Your task to perform on an android device: turn off smart reply in the gmail app Image 0: 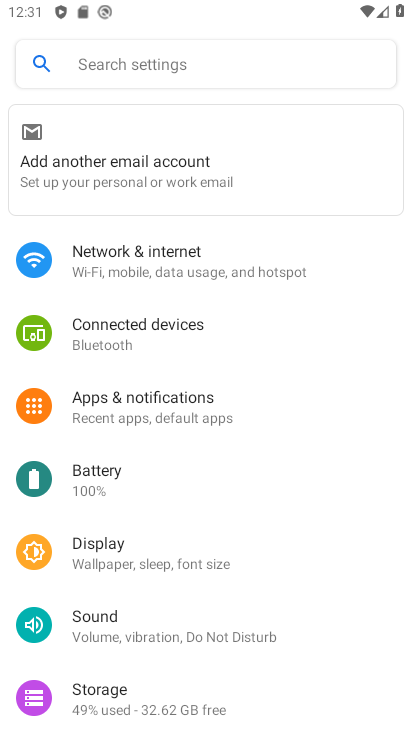
Step 0: press home button
Your task to perform on an android device: turn off smart reply in the gmail app Image 1: 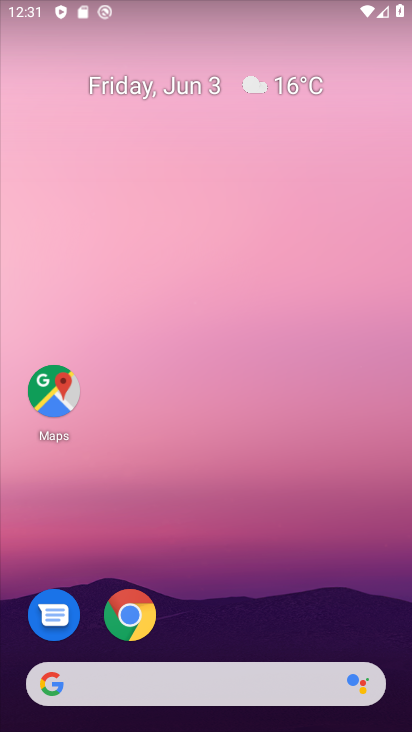
Step 1: drag from (258, 667) to (235, 348)
Your task to perform on an android device: turn off smart reply in the gmail app Image 2: 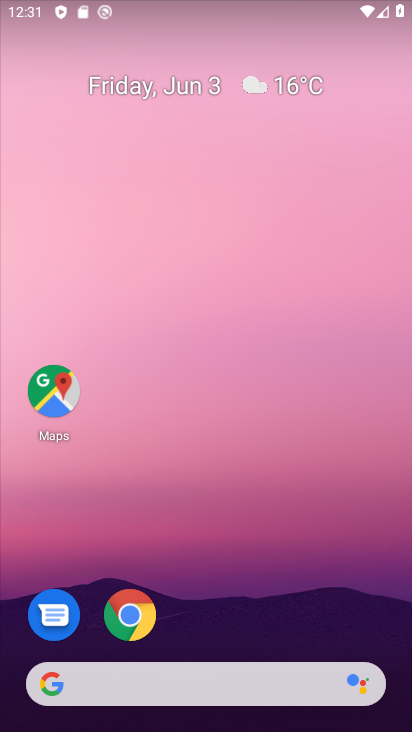
Step 2: drag from (197, 388) to (197, 191)
Your task to perform on an android device: turn off smart reply in the gmail app Image 3: 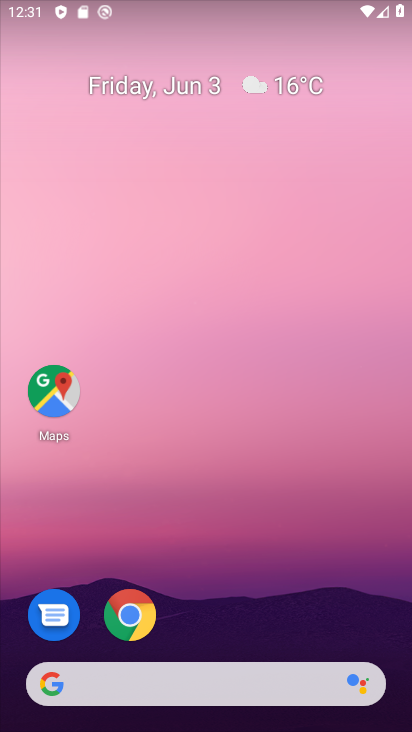
Step 3: drag from (209, 658) to (148, 215)
Your task to perform on an android device: turn off smart reply in the gmail app Image 4: 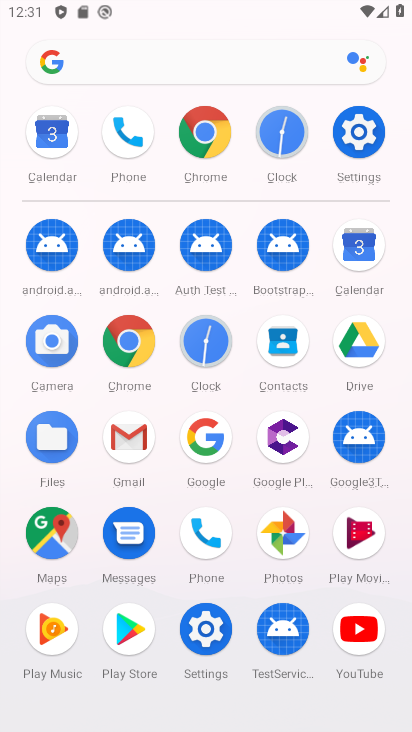
Step 4: click (363, 119)
Your task to perform on an android device: turn off smart reply in the gmail app Image 5: 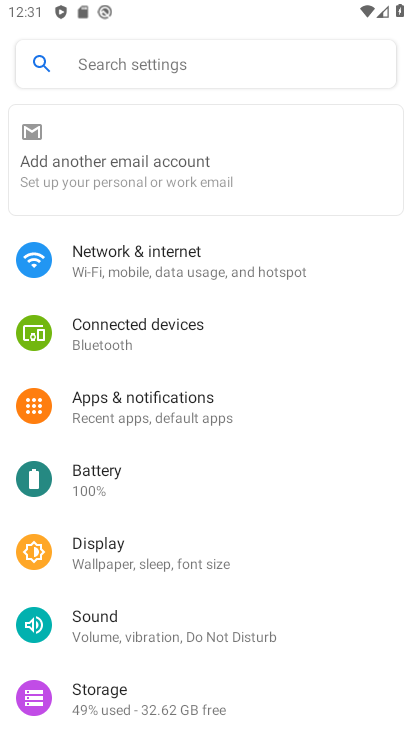
Step 5: press back button
Your task to perform on an android device: turn off smart reply in the gmail app Image 6: 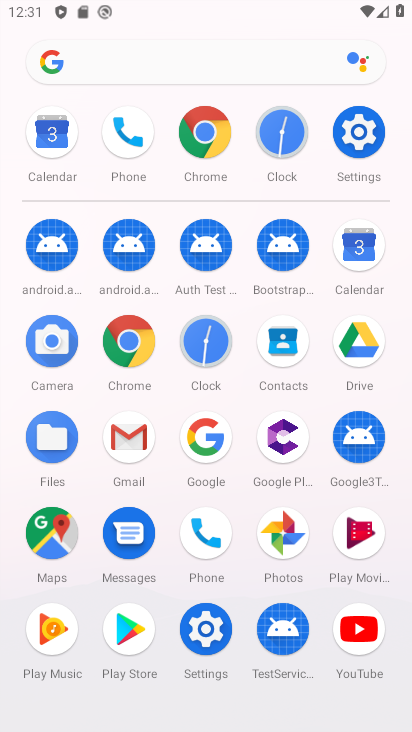
Step 6: click (125, 431)
Your task to perform on an android device: turn off smart reply in the gmail app Image 7: 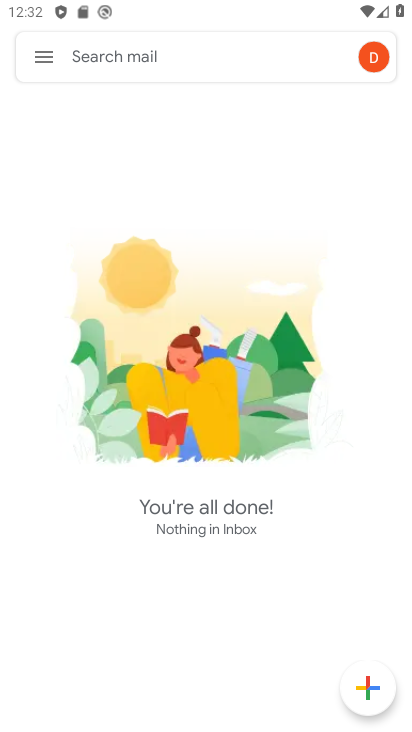
Step 7: click (31, 49)
Your task to perform on an android device: turn off smart reply in the gmail app Image 8: 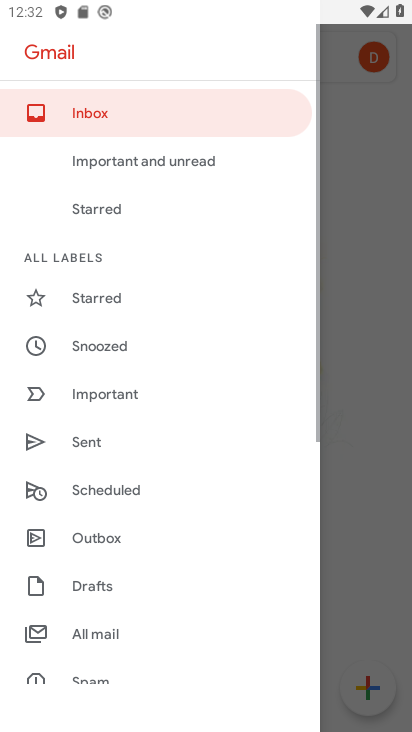
Step 8: drag from (132, 641) to (129, 265)
Your task to perform on an android device: turn off smart reply in the gmail app Image 9: 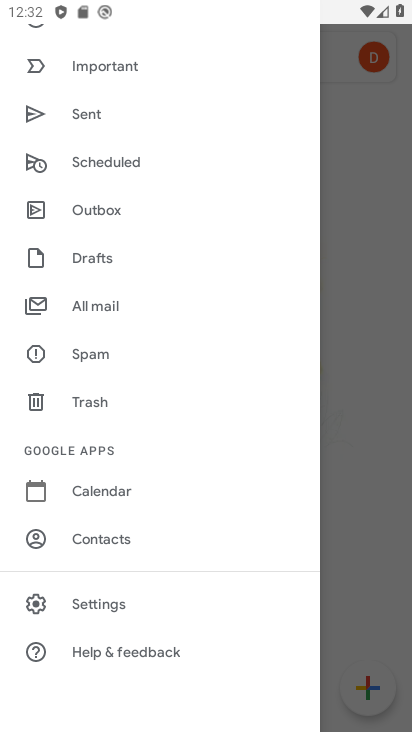
Step 9: click (134, 598)
Your task to perform on an android device: turn off smart reply in the gmail app Image 10: 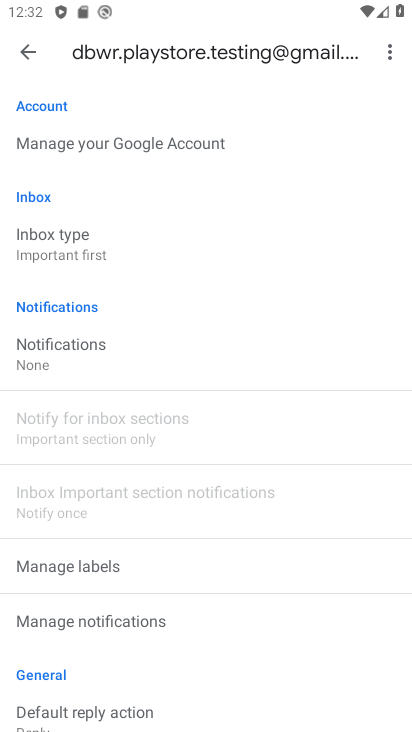
Step 10: click (195, 307)
Your task to perform on an android device: turn off smart reply in the gmail app Image 11: 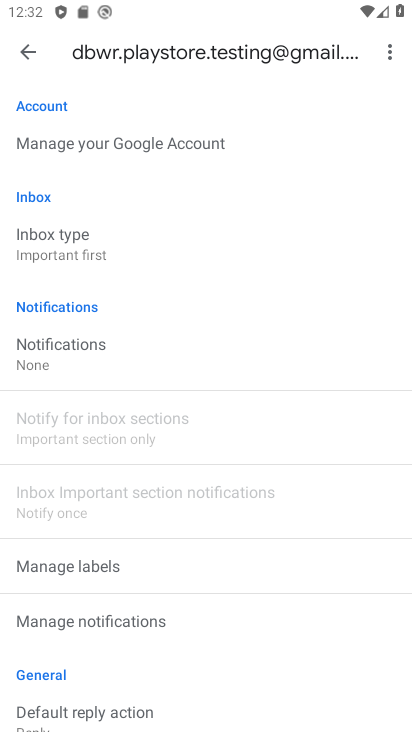
Step 11: drag from (147, 636) to (220, 139)
Your task to perform on an android device: turn off smart reply in the gmail app Image 12: 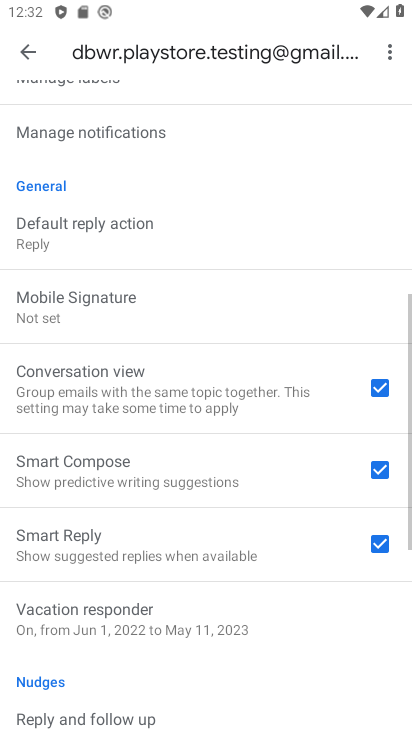
Step 12: drag from (164, 648) to (233, 229)
Your task to perform on an android device: turn off smart reply in the gmail app Image 13: 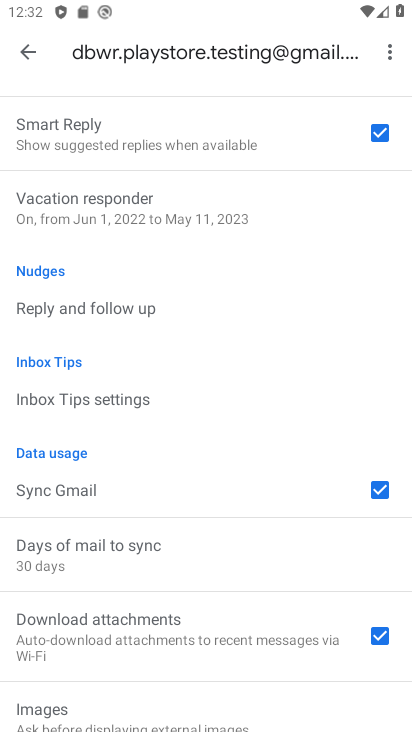
Step 13: drag from (164, 593) to (188, 234)
Your task to perform on an android device: turn off smart reply in the gmail app Image 14: 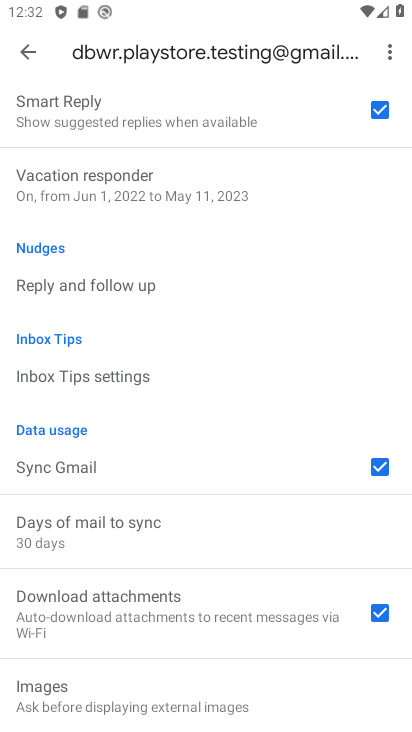
Step 14: drag from (136, 597) to (226, 169)
Your task to perform on an android device: turn off smart reply in the gmail app Image 15: 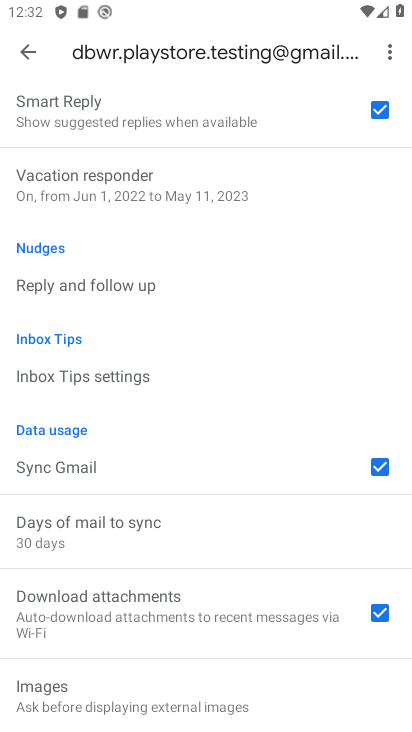
Step 15: click (114, 122)
Your task to perform on an android device: turn off smart reply in the gmail app Image 16: 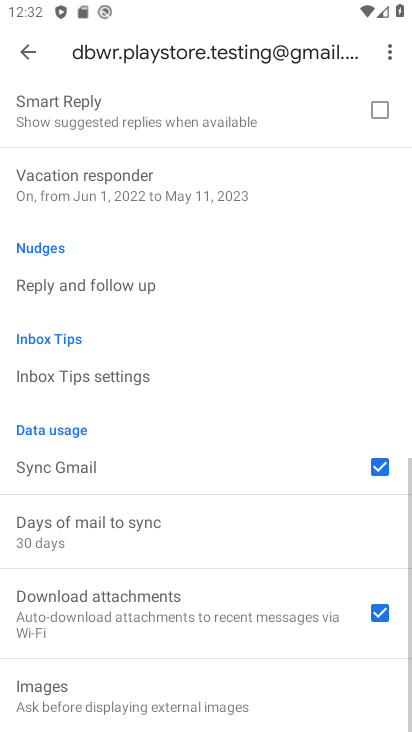
Step 16: task complete